Your task to perform on an android device: Search for "corsair k70" on amazon, select the first entry, and add it to the cart. Image 0: 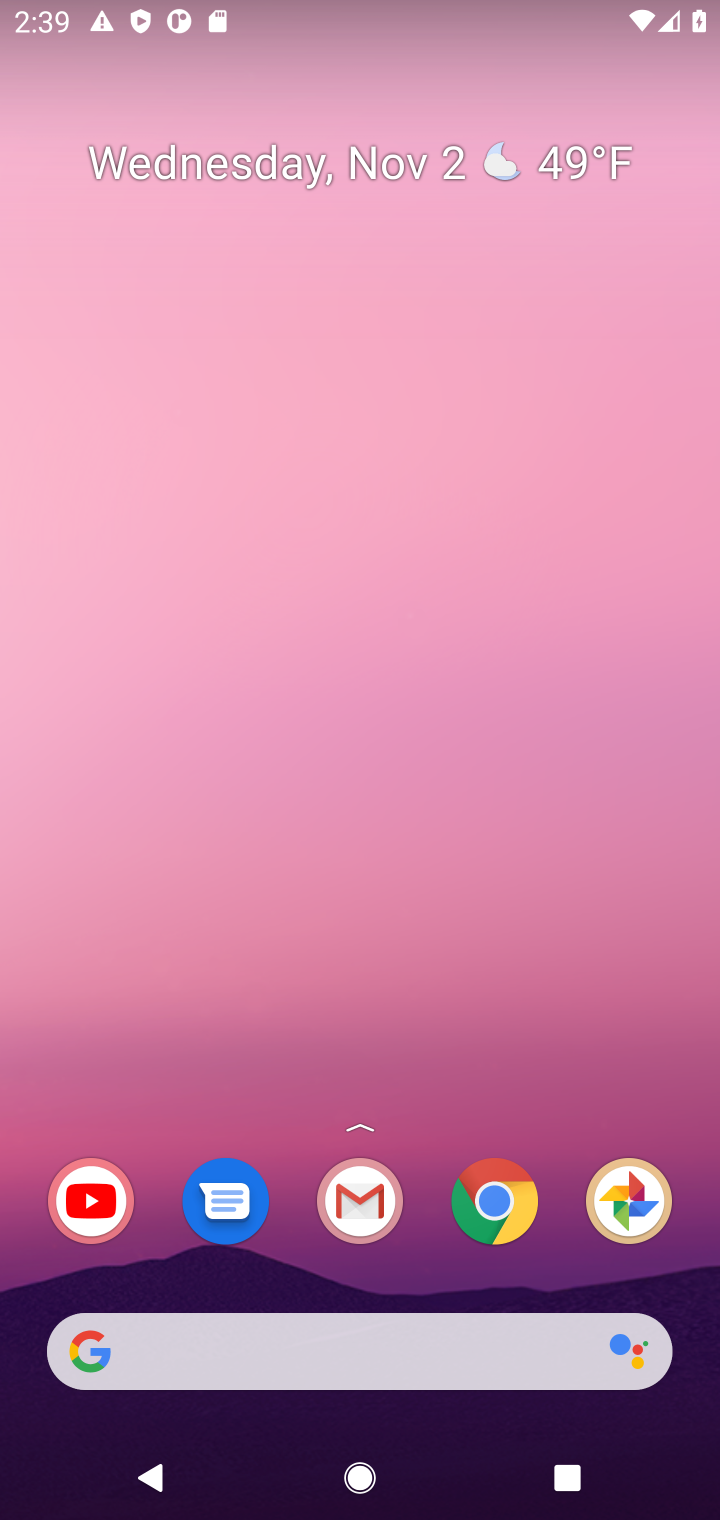
Step 0: click (505, 1187)
Your task to perform on an android device: Search for "corsair k70" on amazon, select the first entry, and add it to the cart. Image 1: 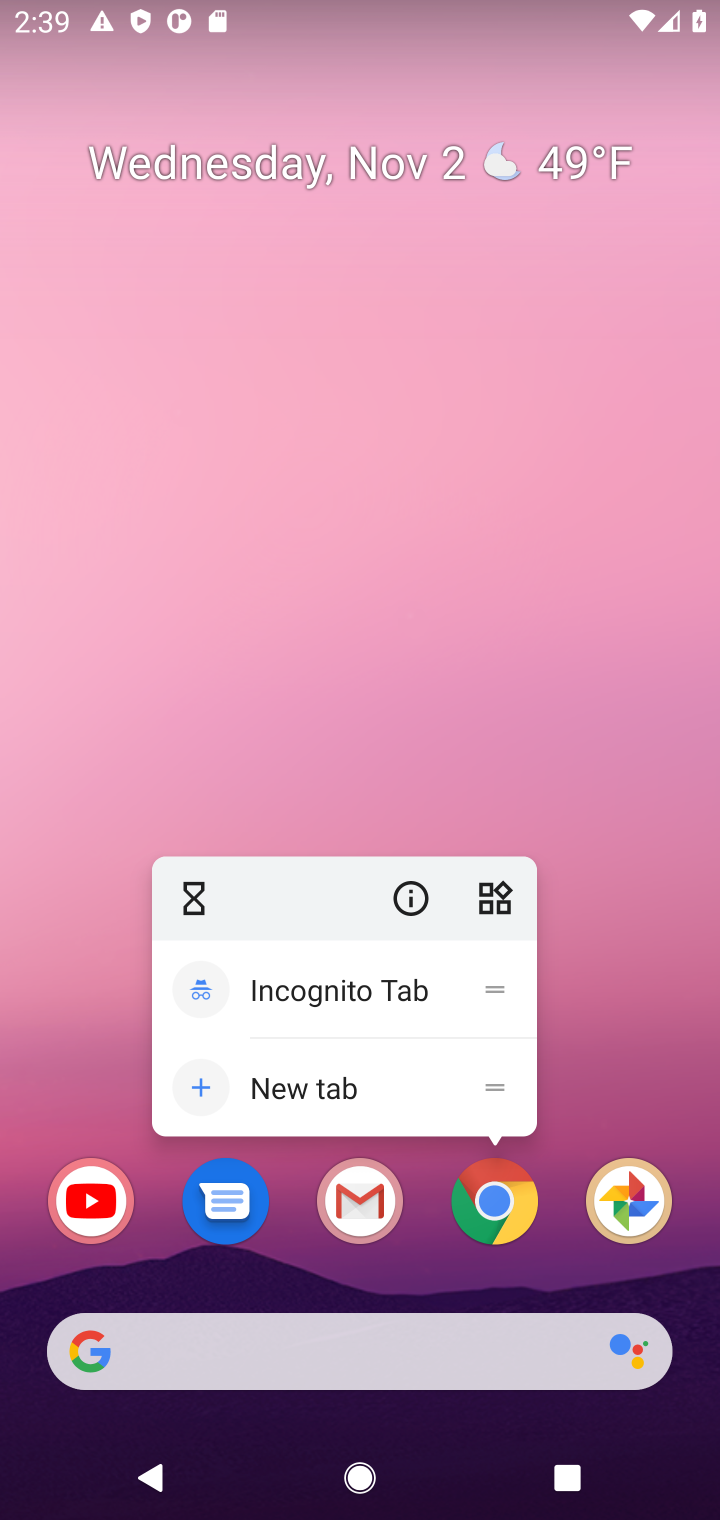
Step 1: click (505, 1191)
Your task to perform on an android device: Search for "corsair k70" on amazon, select the first entry, and add it to the cart. Image 2: 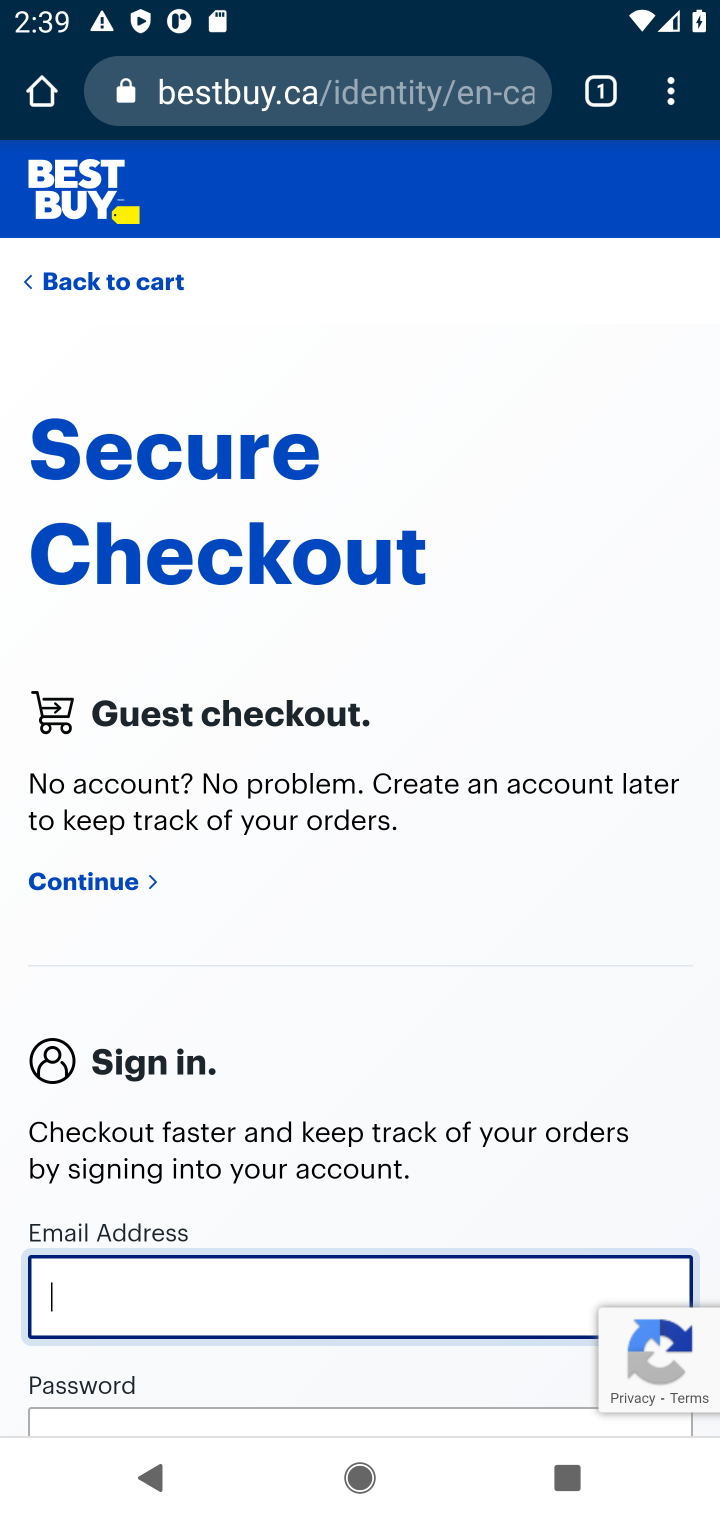
Step 2: click (389, 103)
Your task to perform on an android device: Search for "corsair k70" on amazon, select the first entry, and add it to the cart. Image 3: 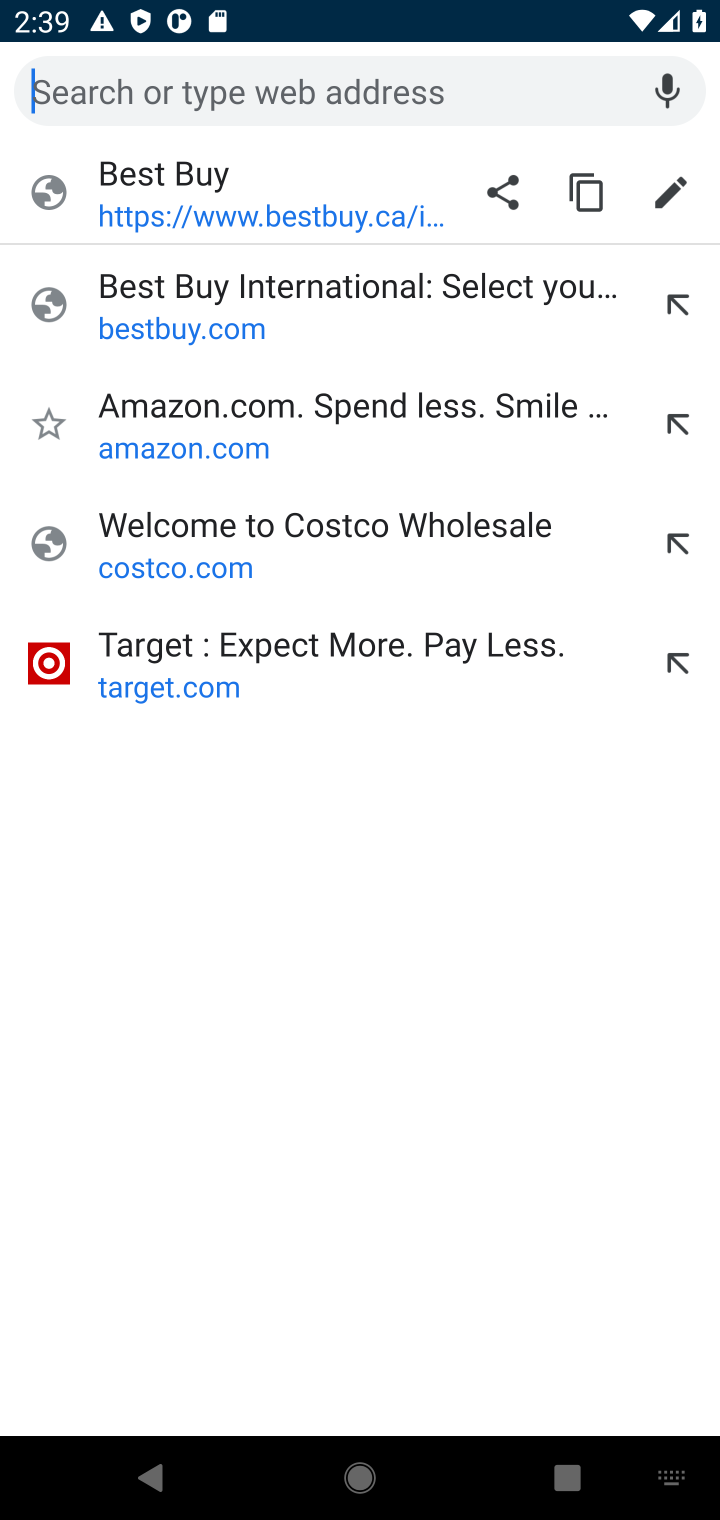
Step 3: click (247, 414)
Your task to perform on an android device: Search for "corsair k70" on amazon, select the first entry, and add it to the cart. Image 4: 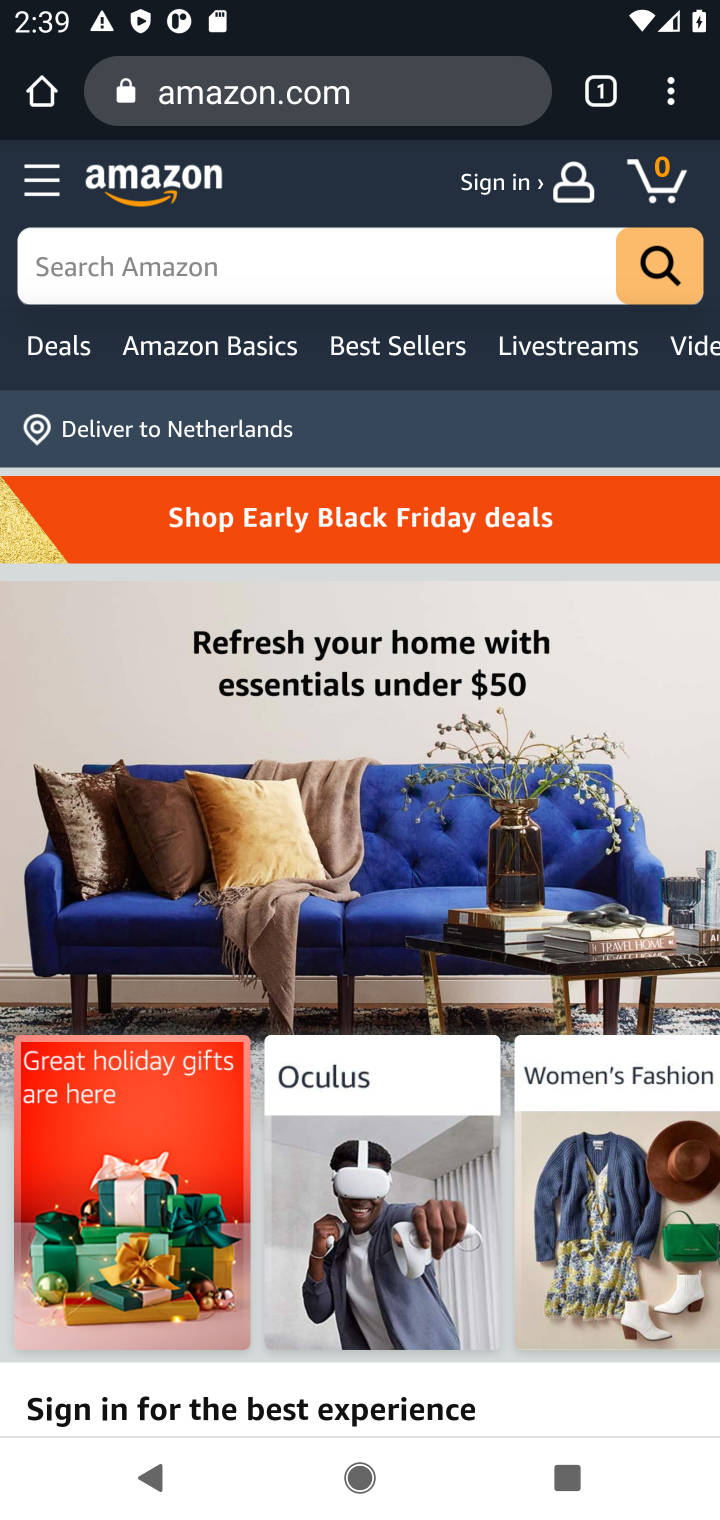
Step 4: click (316, 249)
Your task to perform on an android device: Search for "corsair k70" on amazon, select the first entry, and add it to the cart. Image 5: 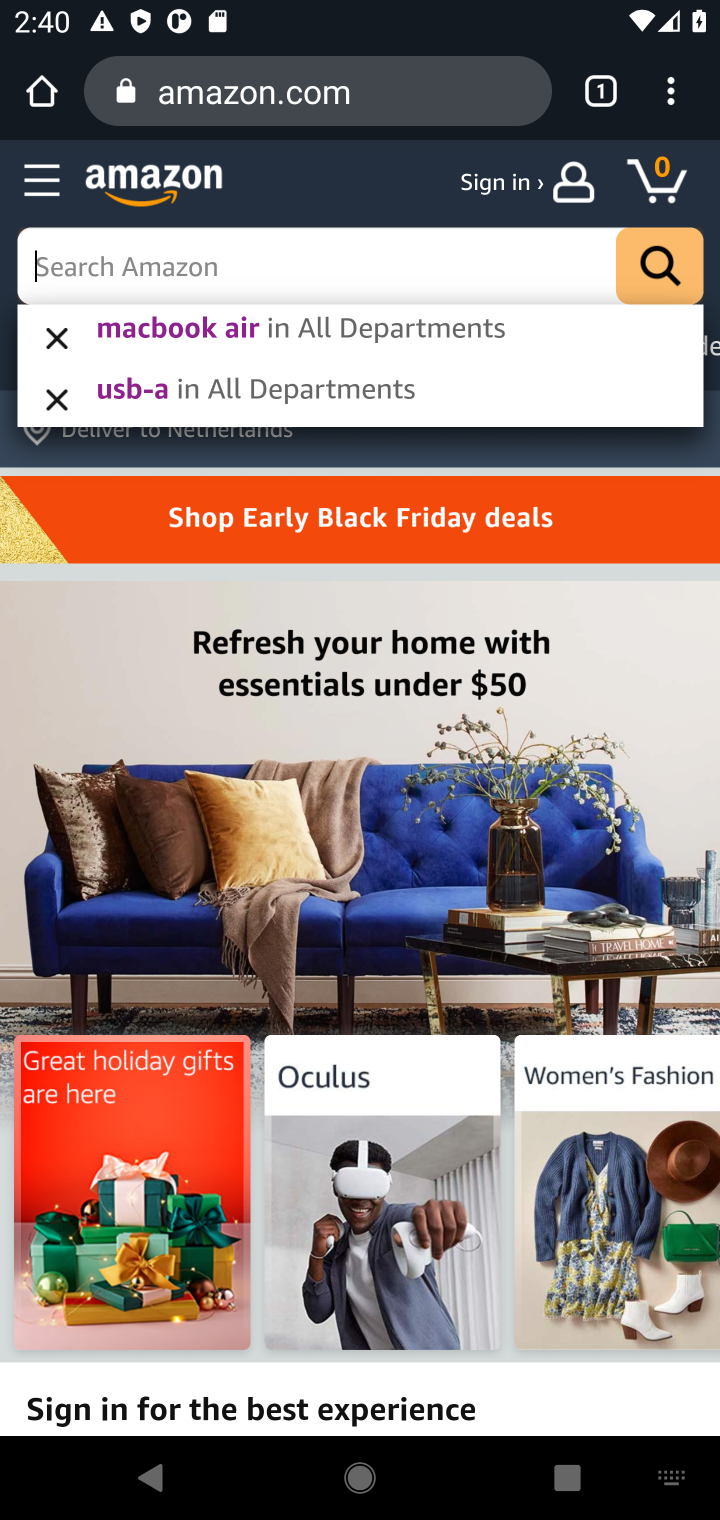
Step 5: type "corsair k70"
Your task to perform on an android device: Search for "corsair k70" on amazon, select the first entry, and add it to the cart. Image 6: 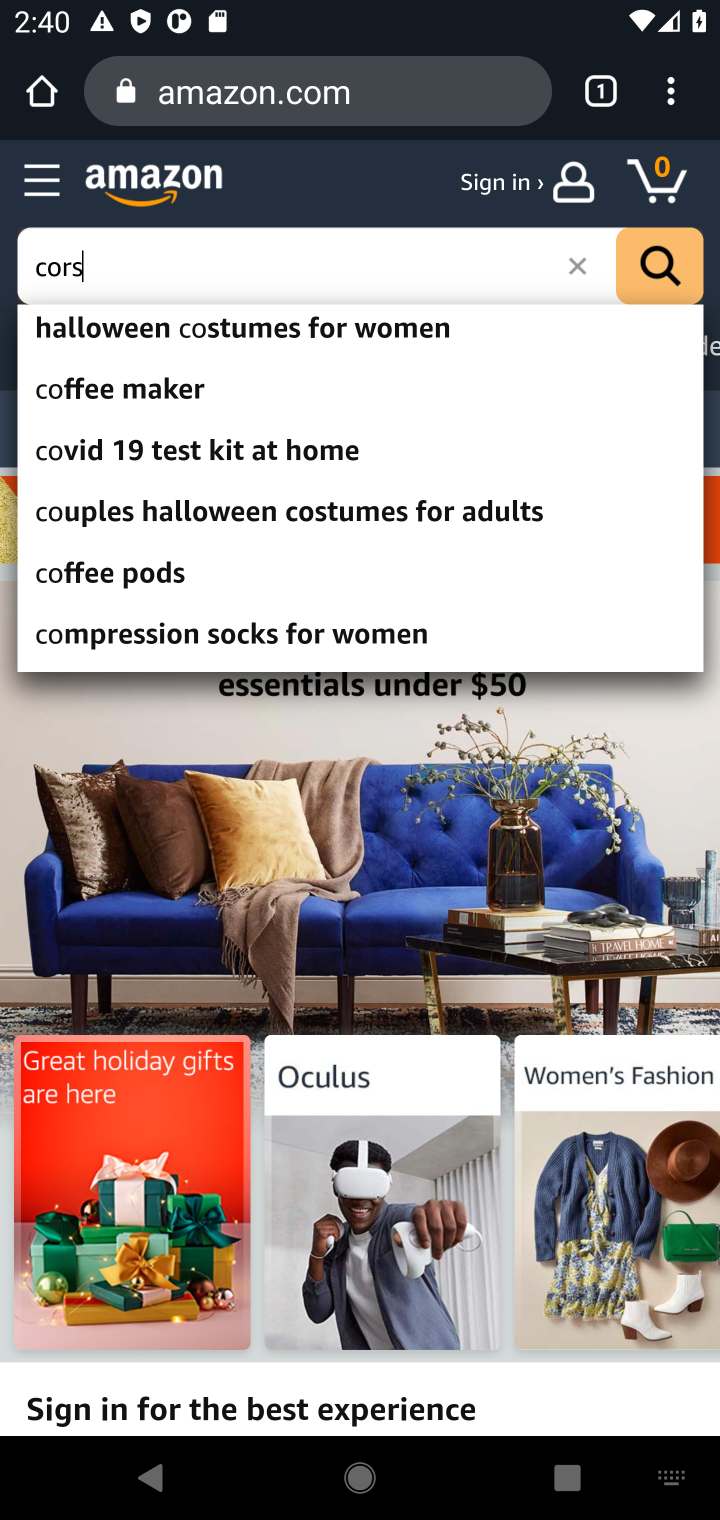
Step 6: press enter
Your task to perform on an android device: Search for "corsair k70" on amazon, select the first entry, and add it to the cart. Image 7: 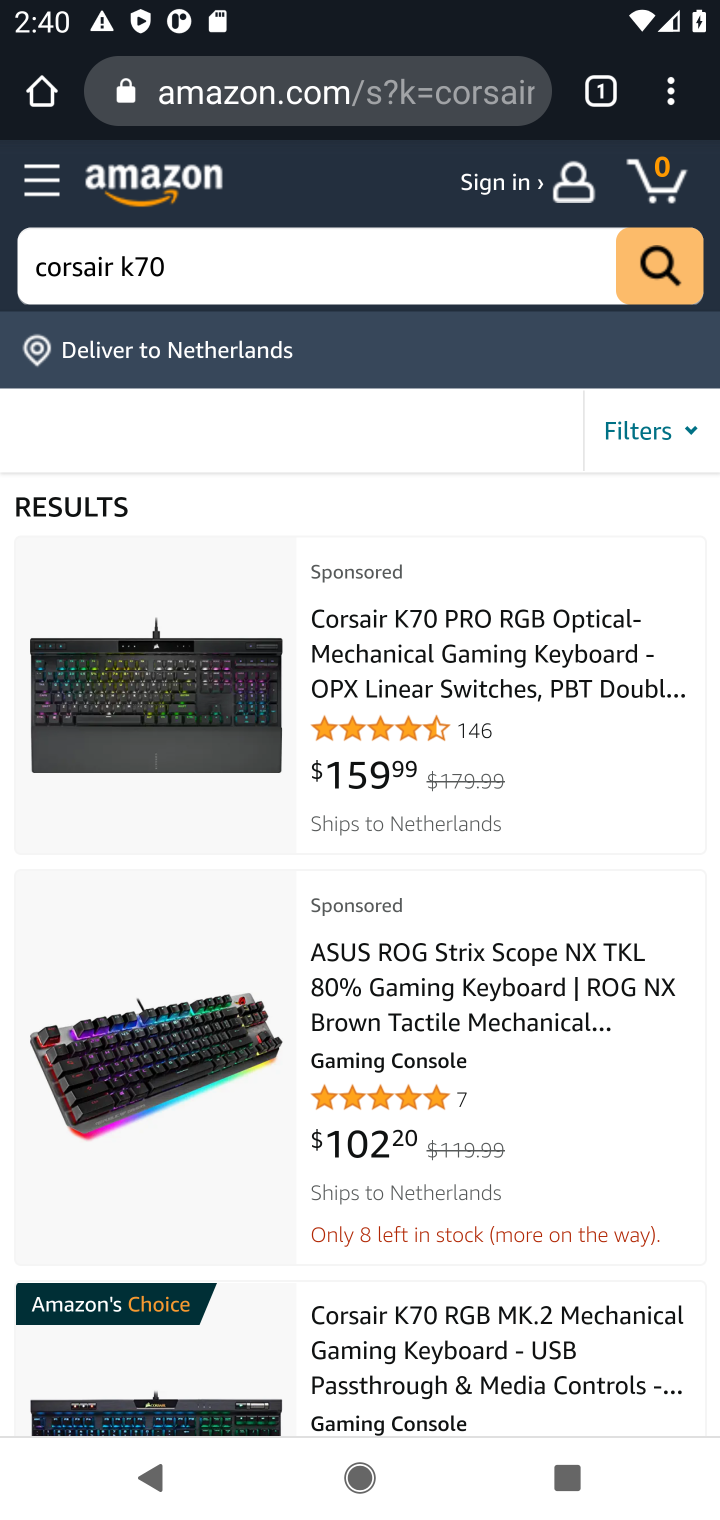
Step 7: click (430, 673)
Your task to perform on an android device: Search for "corsair k70" on amazon, select the first entry, and add it to the cart. Image 8: 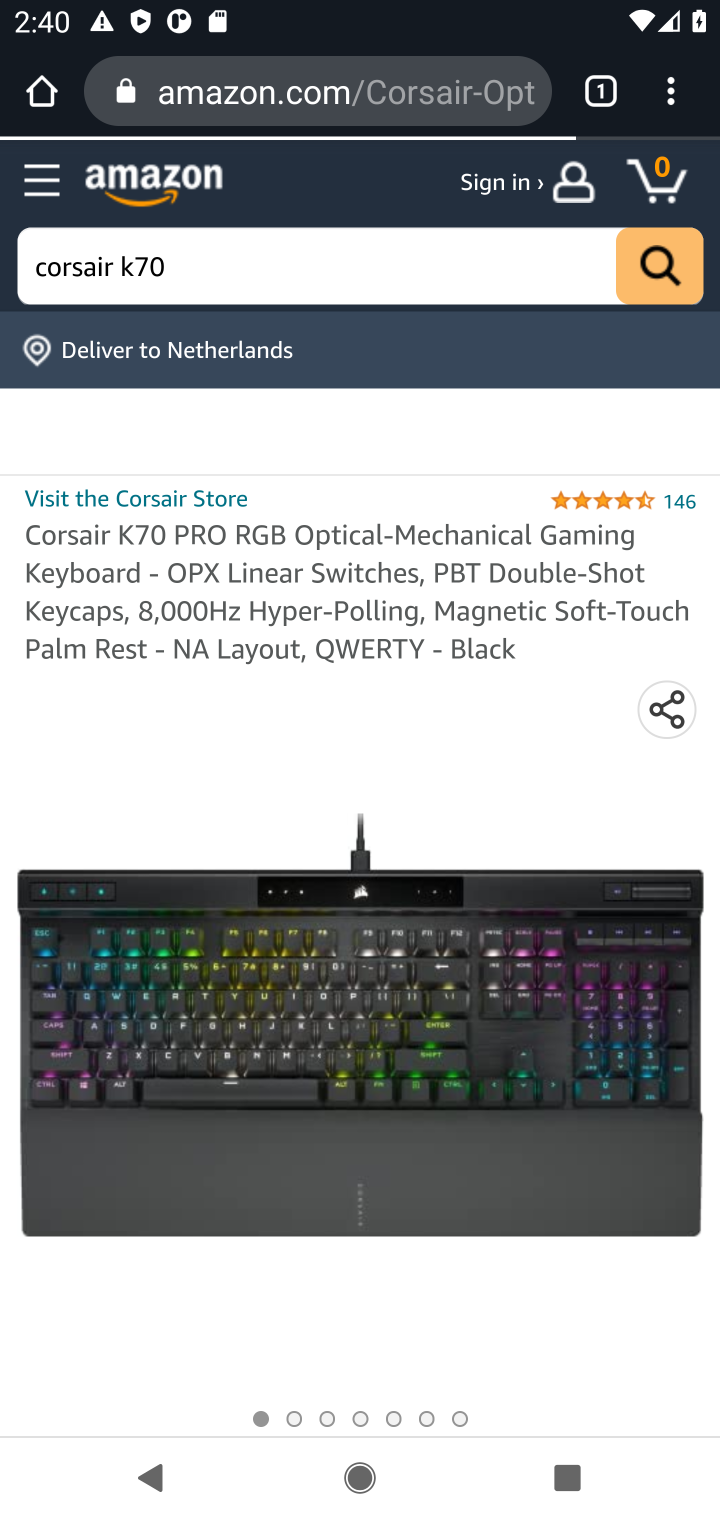
Step 8: drag from (256, 1239) to (683, 369)
Your task to perform on an android device: Search for "corsair k70" on amazon, select the first entry, and add it to the cart. Image 9: 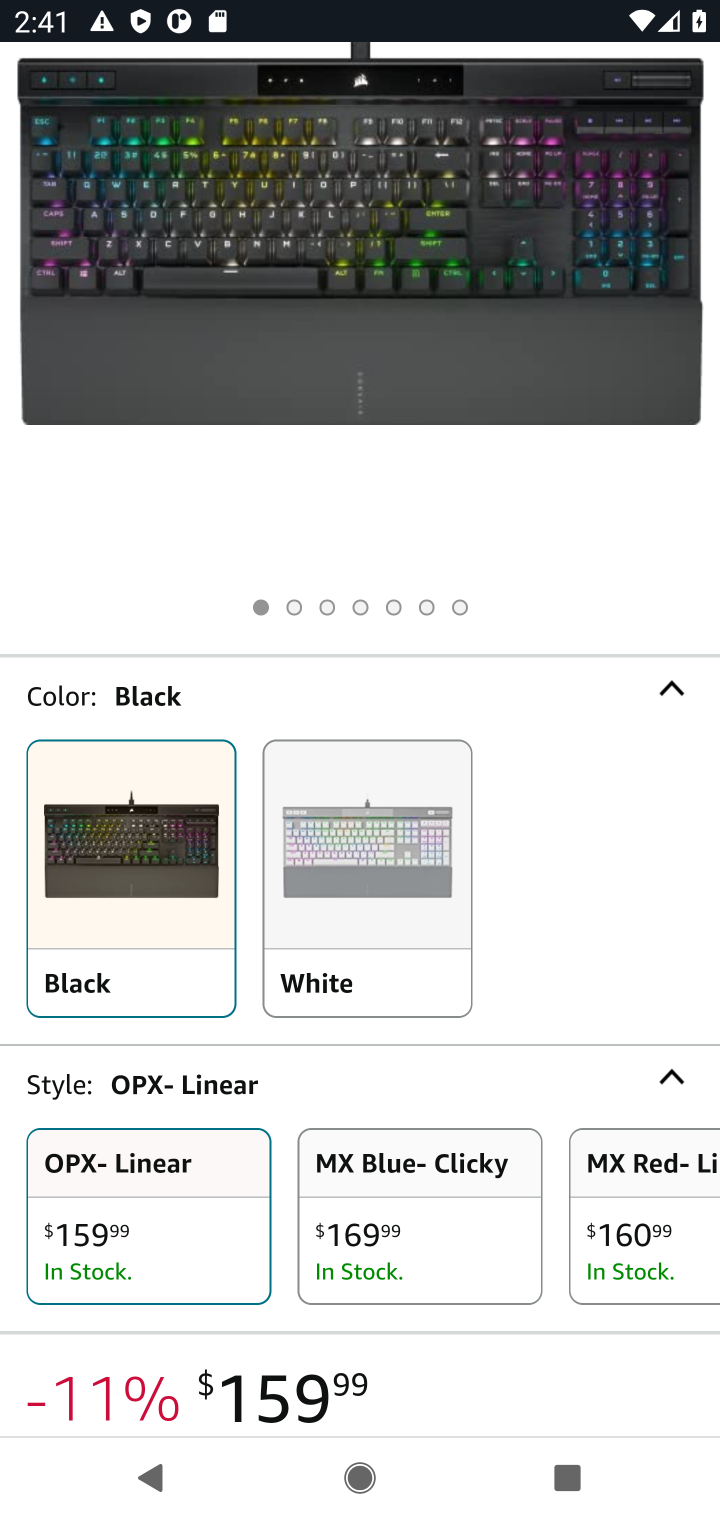
Step 9: drag from (316, 1143) to (579, 519)
Your task to perform on an android device: Search for "corsair k70" on amazon, select the first entry, and add it to the cart. Image 10: 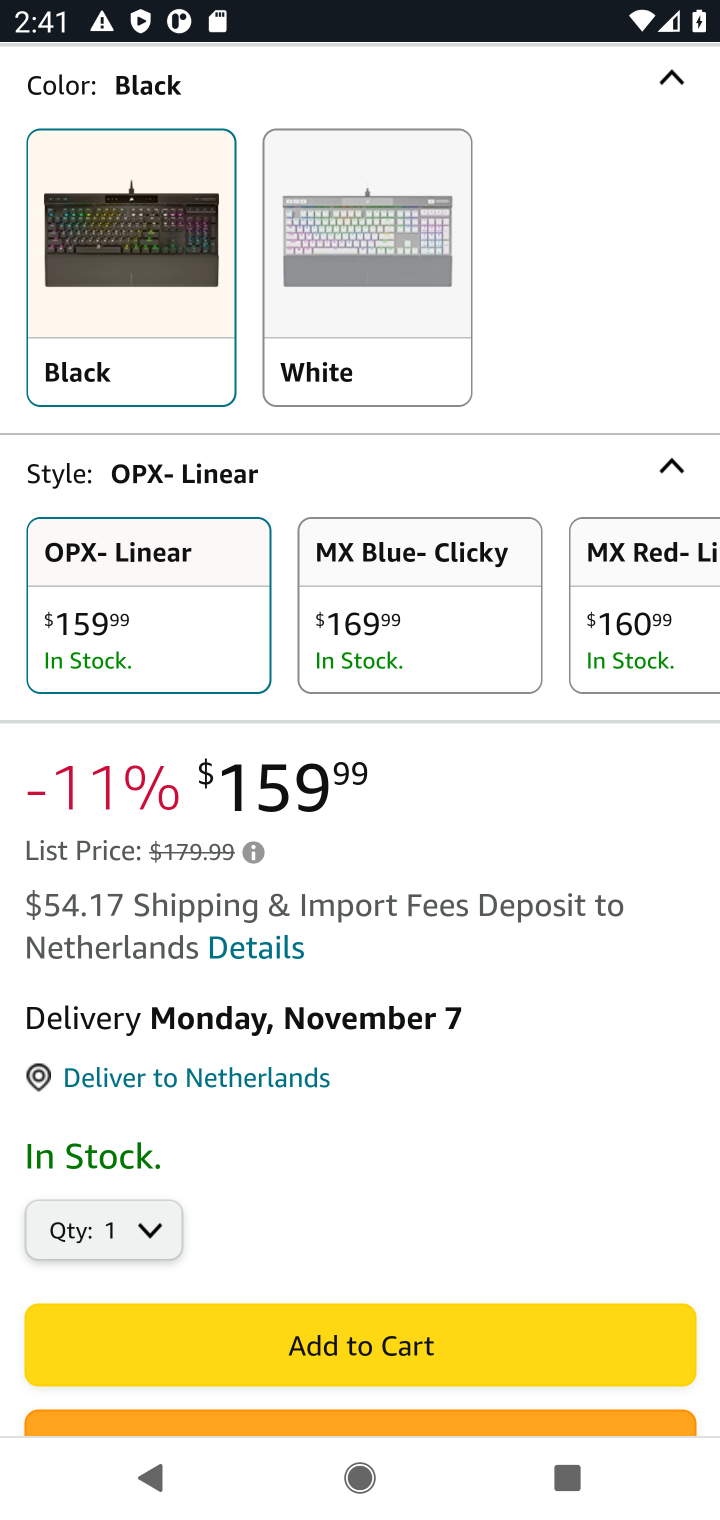
Step 10: drag from (348, 1248) to (554, 631)
Your task to perform on an android device: Search for "corsair k70" on amazon, select the first entry, and add it to the cart. Image 11: 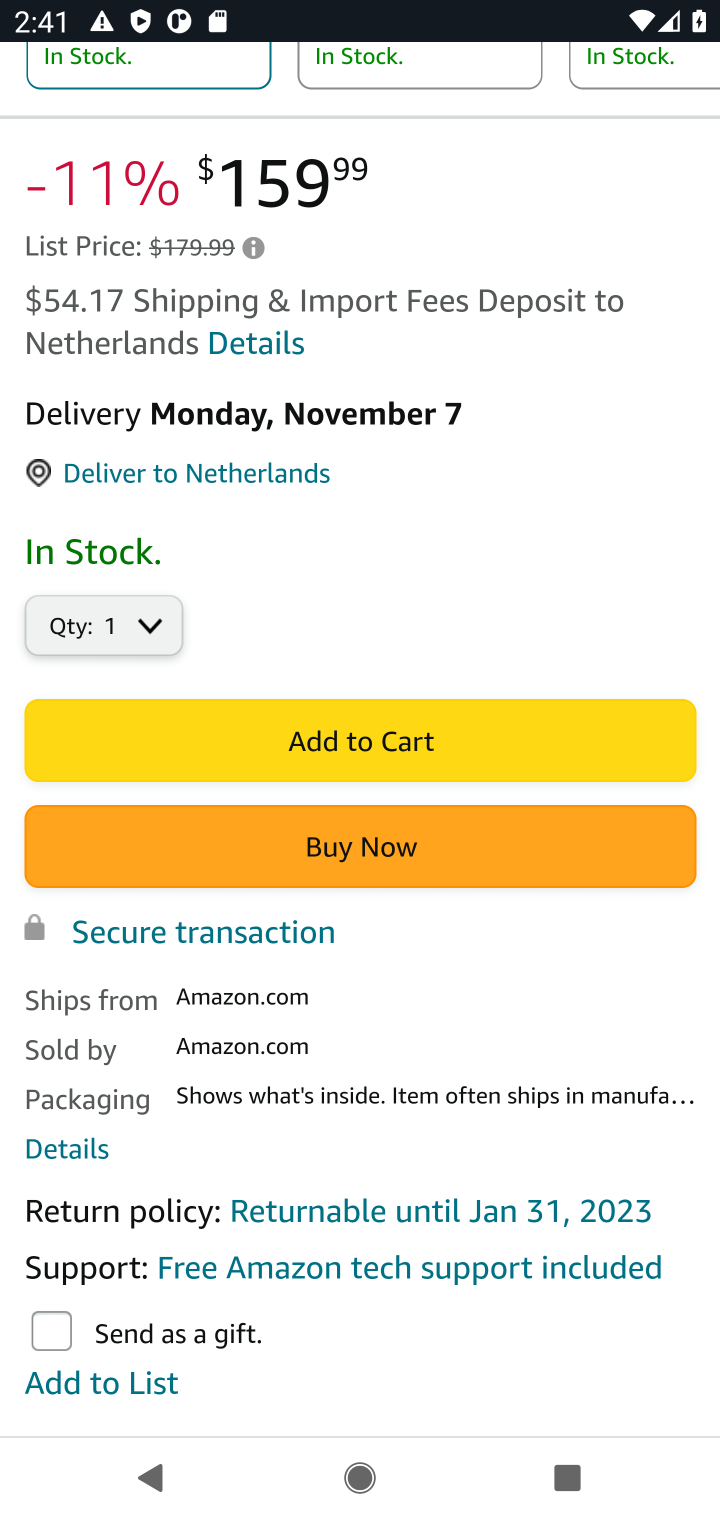
Step 11: click (358, 756)
Your task to perform on an android device: Search for "corsair k70" on amazon, select the first entry, and add it to the cart. Image 12: 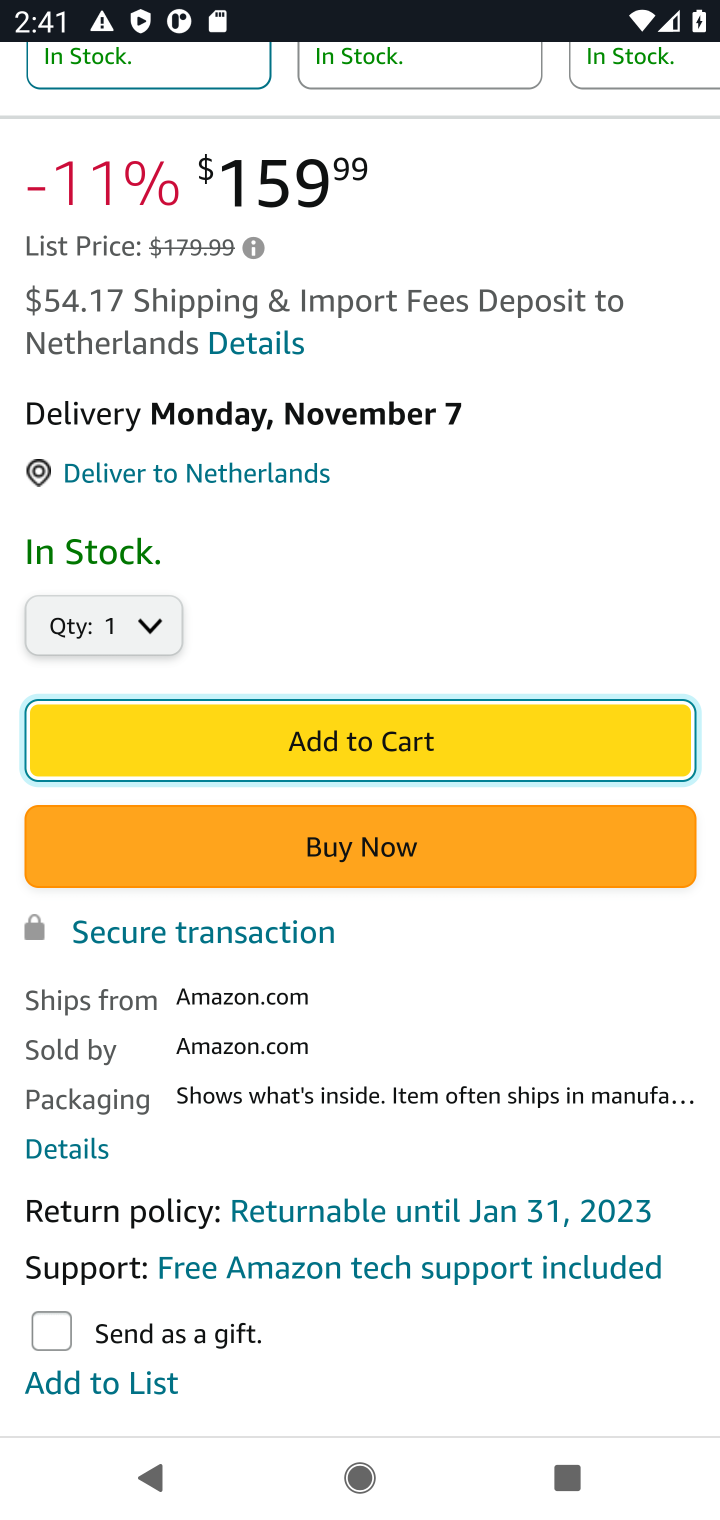
Step 12: click (433, 744)
Your task to perform on an android device: Search for "corsair k70" on amazon, select the first entry, and add it to the cart. Image 13: 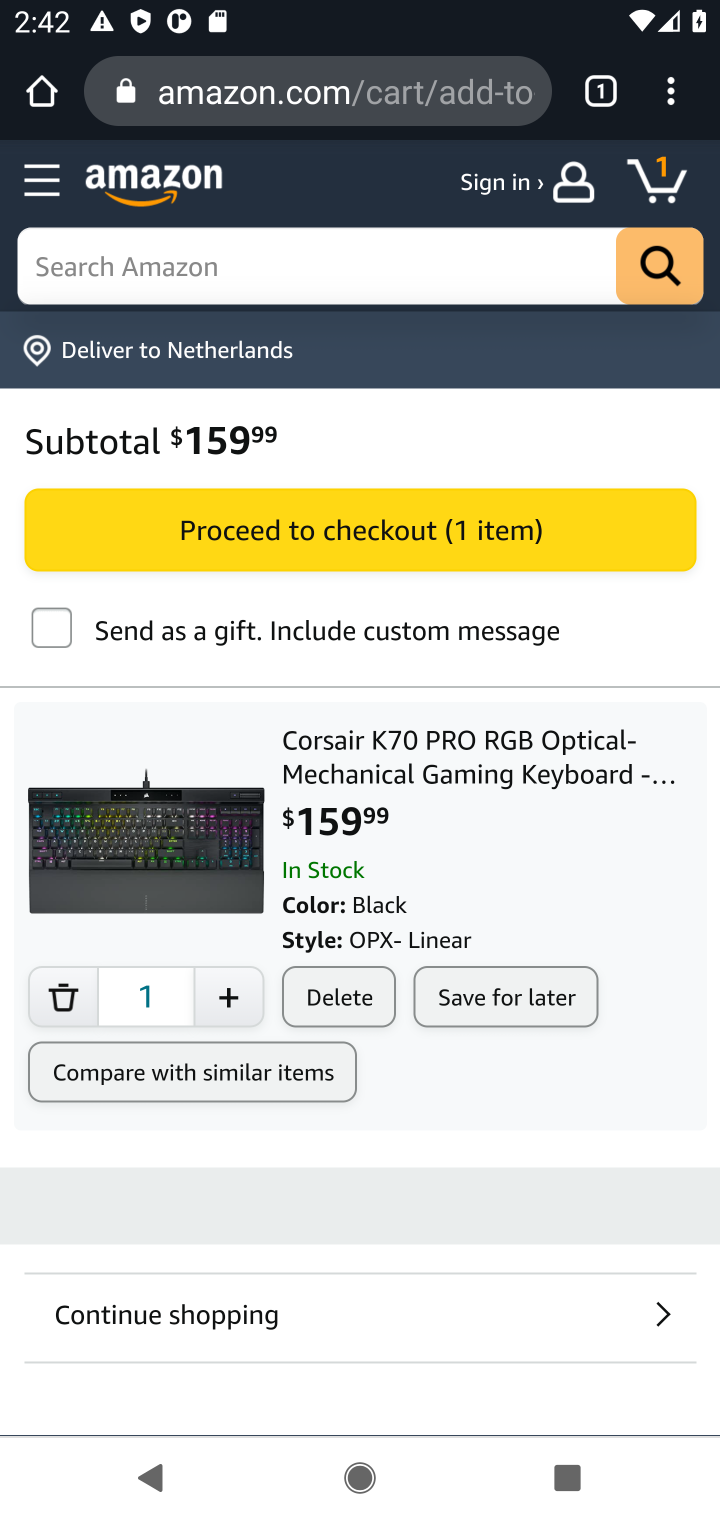
Step 13: task complete